Your task to perform on an android device: Open Android settings Image 0: 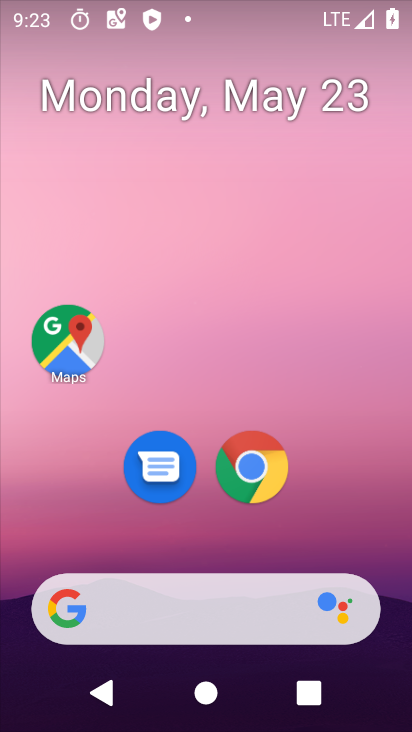
Step 0: drag from (326, 481) to (197, 0)
Your task to perform on an android device: Open Android settings Image 1: 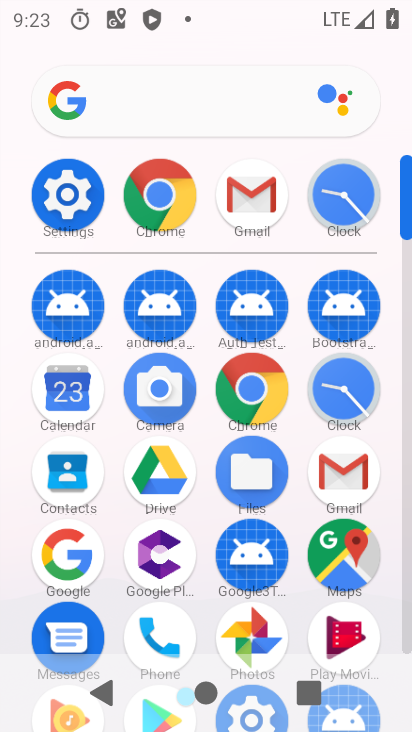
Step 1: click (81, 211)
Your task to perform on an android device: Open Android settings Image 2: 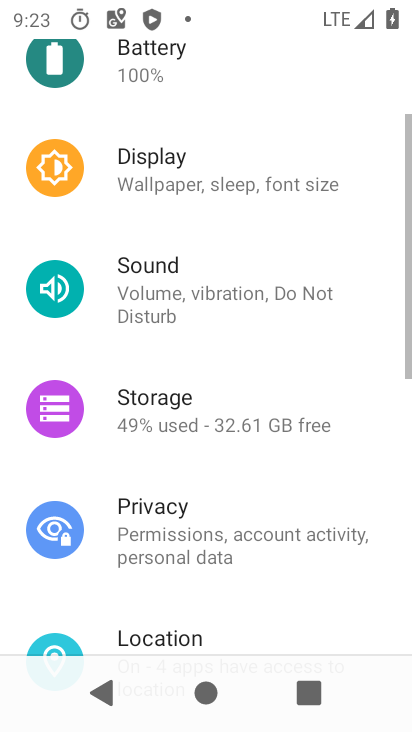
Step 2: drag from (274, 605) to (191, 41)
Your task to perform on an android device: Open Android settings Image 3: 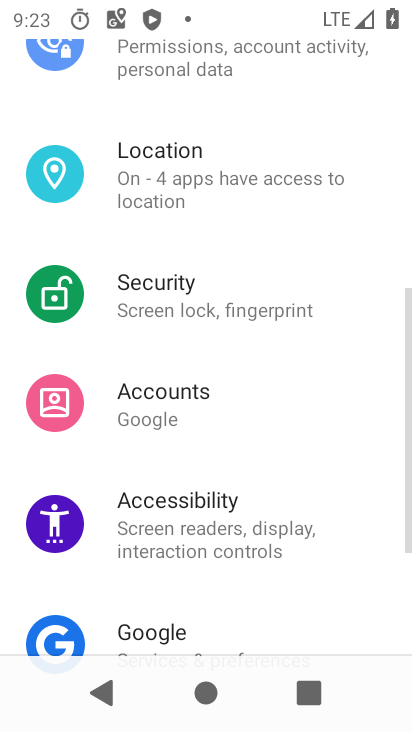
Step 3: drag from (250, 563) to (252, 2)
Your task to perform on an android device: Open Android settings Image 4: 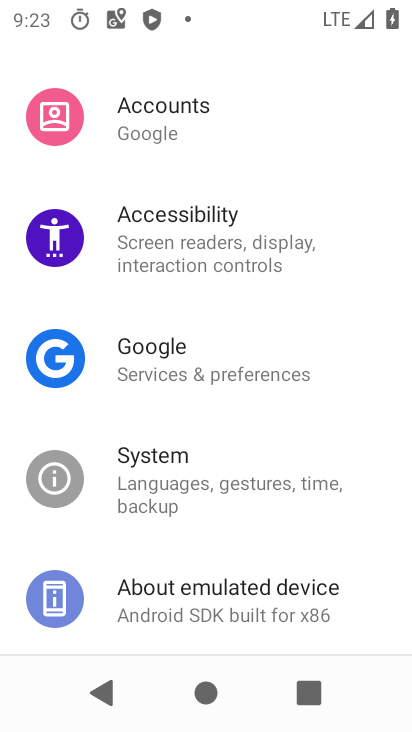
Step 4: click (258, 575)
Your task to perform on an android device: Open Android settings Image 5: 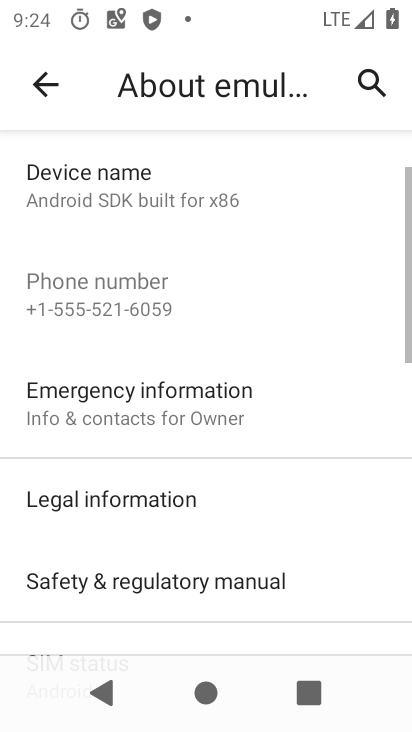
Step 5: drag from (250, 583) to (209, 43)
Your task to perform on an android device: Open Android settings Image 6: 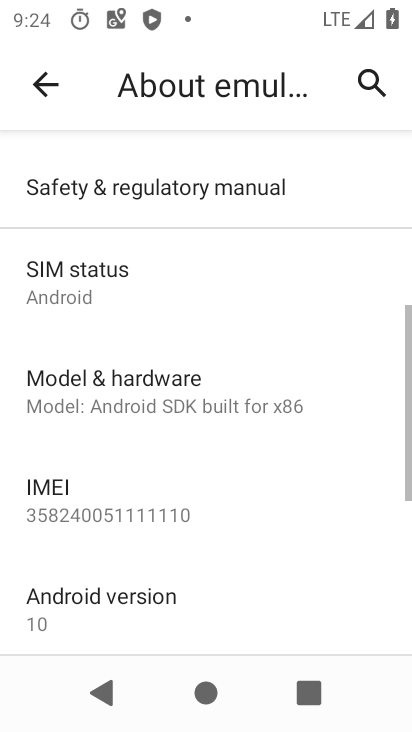
Step 6: click (205, 610)
Your task to perform on an android device: Open Android settings Image 7: 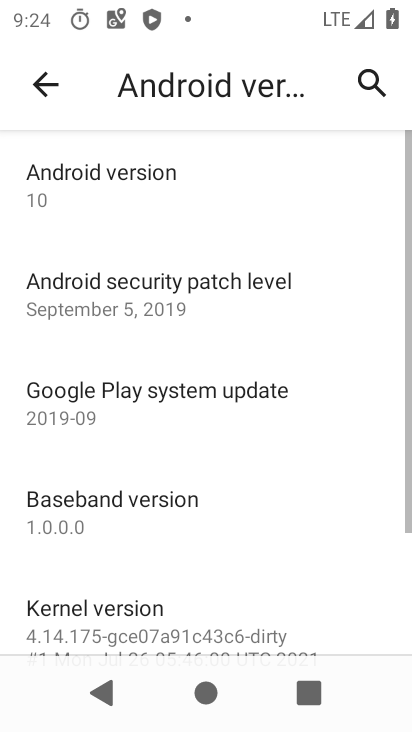
Step 7: task complete